Your task to perform on an android device: Search for vegetarian restaurants on Maps Image 0: 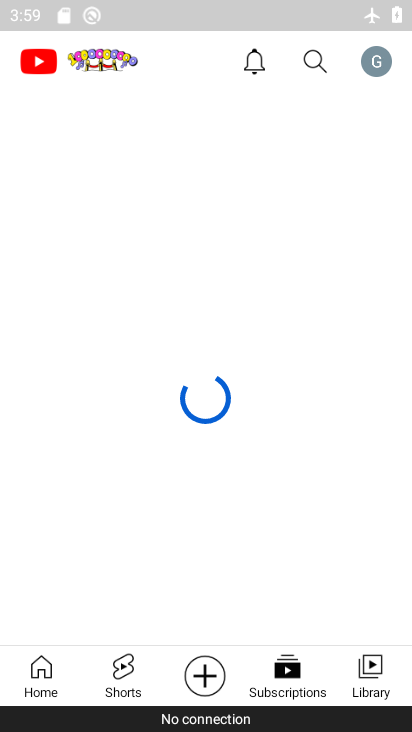
Step 0: press home button
Your task to perform on an android device: Search for vegetarian restaurants on Maps Image 1: 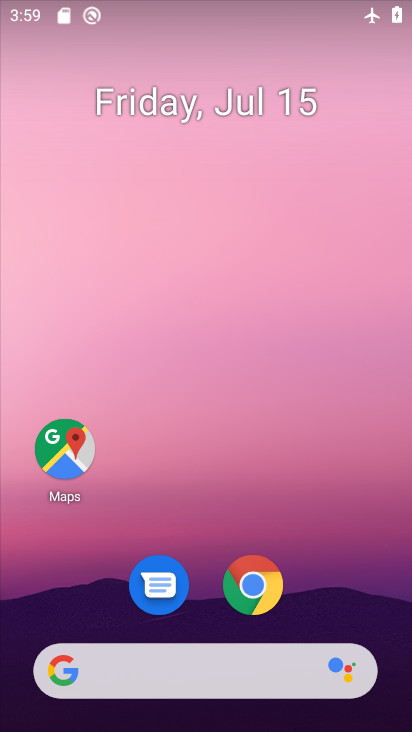
Step 1: click (71, 446)
Your task to perform on an android device: Search for vegetarian restaurants on Maps Image 2: 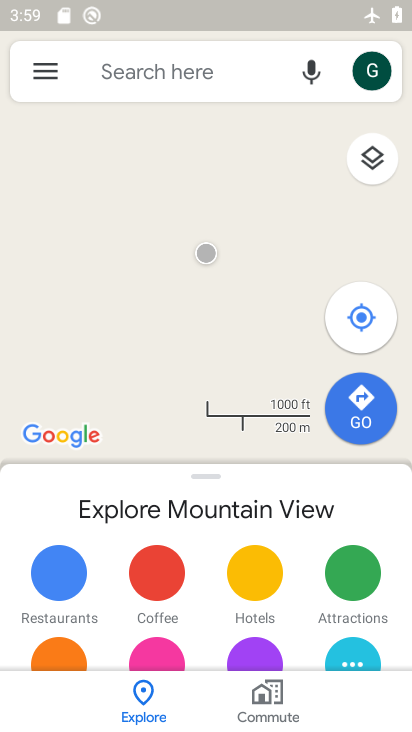
Step 2: click (216, 75)
Your task to perform on an android device: Search for vegetarian restaurants on Maps Image 3: 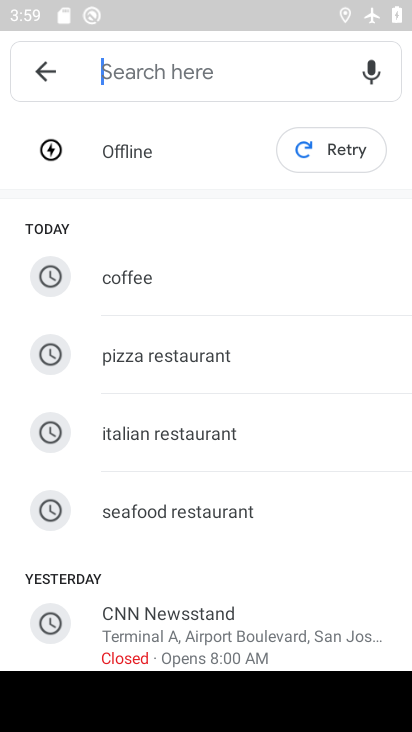
Step 3: drag from (246, 543) to (220, 192)
Your task to perform on an android device: Search for vegetarian restaurants on Maps Image 4: 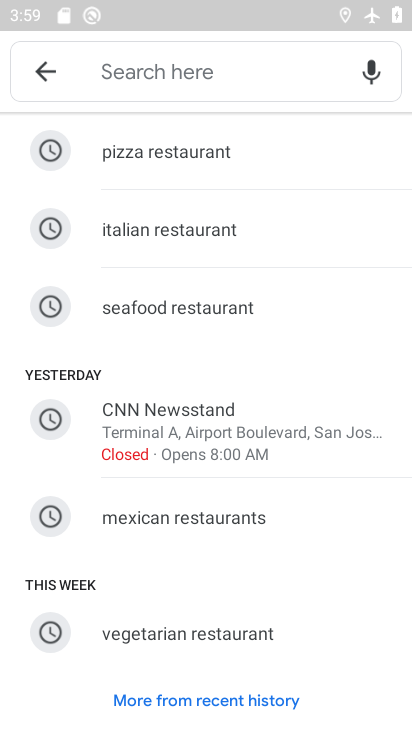
Step 4: click (232, 632)
Your task to perform on an android device: Search for vegetarian restaurants on Maps Image 5: 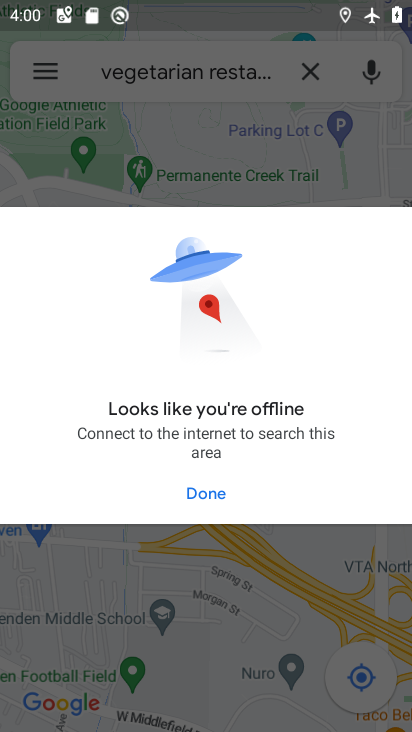
Step 5: task complete